Your task to perform on an android device: open a bookmark in the chrome app Image 0: 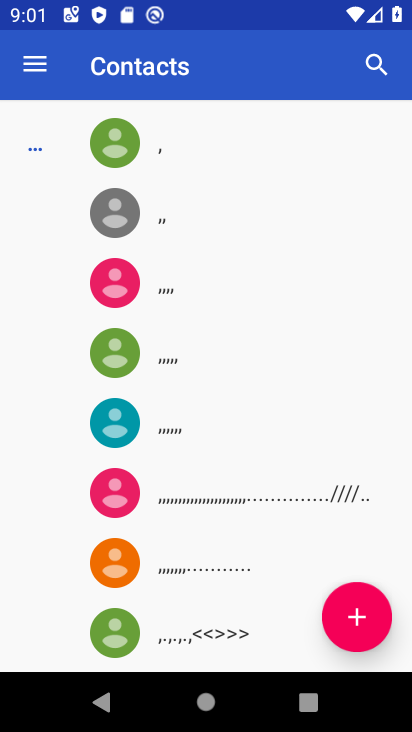
Step 0: press home button
Your task to perform on an android device: open a bookmark in the chrome app Image 1: 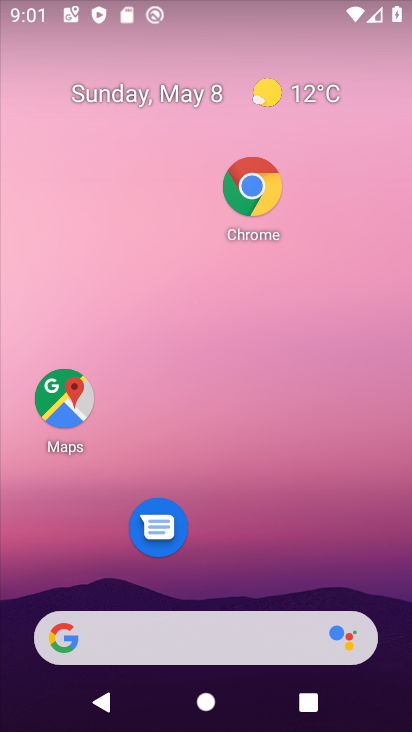
Step 1: drag from (301, 581) to (310, 211)
Your task to perform on an android device: open a bookmark in the chrome app Image 2: 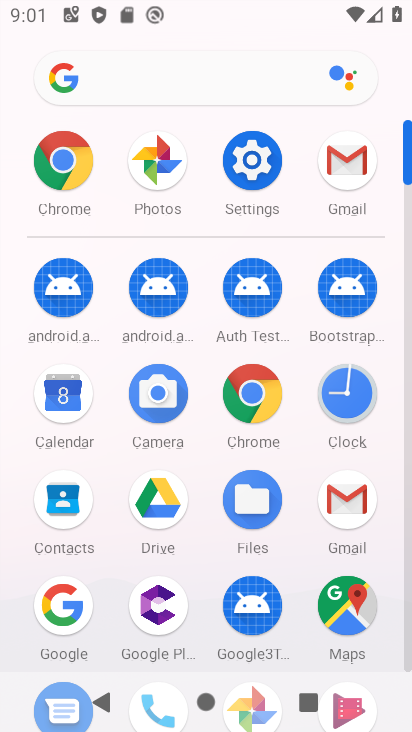
Step 2: click (254, 395)
Your task to perform on an android device: open a bookmark in the chrome app Image 3: 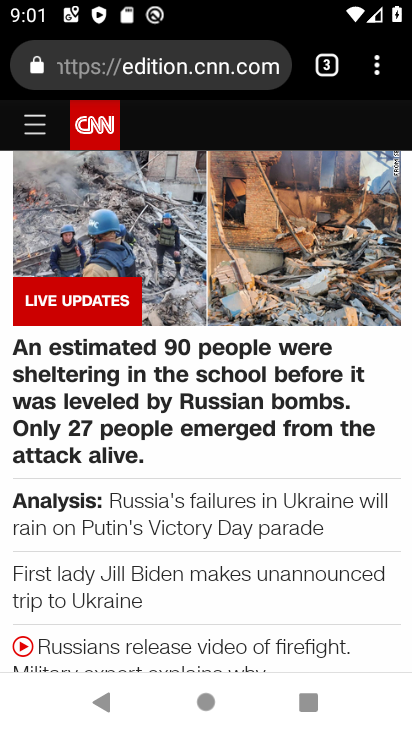
Step 3: click (370, 71)
Your task to perform on an android device: open a bookmark in the chrome app Image 4: 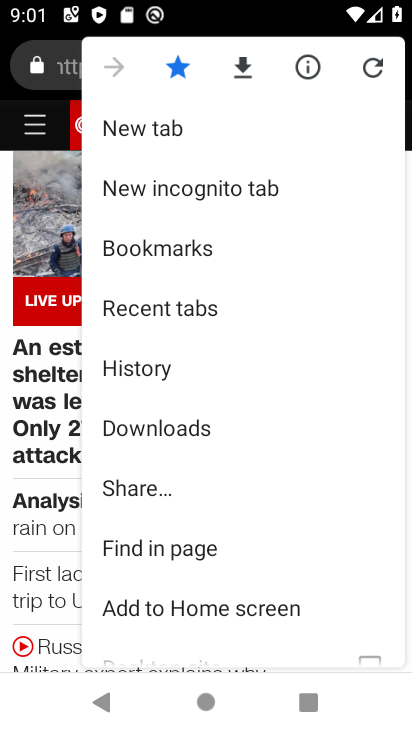
Step 4: click (182, 237)
Your task to perform on an android device: open a bookmark in the chrome app Image 5: 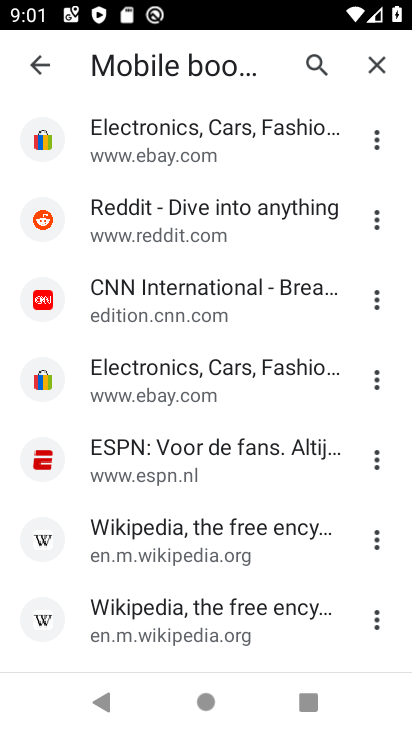
Step 5: task complete